Your task to perform on an android device: Go to sound settings Image 0: 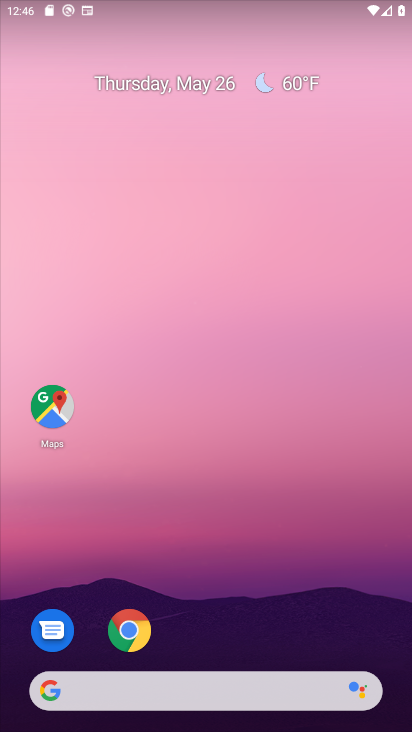
Step 0: drag from (305, 622) to (309, 55)
Your task to perform on an android device: Go to sound settings Image 1: 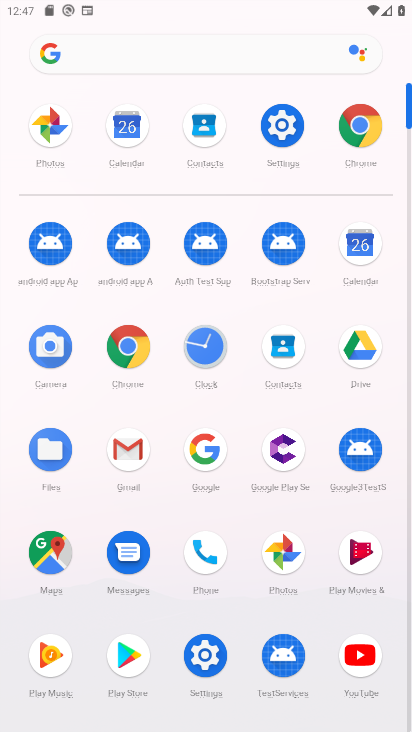
Step 1: click (283, 122)
Your task to perform on an android device: Go to sound settings Image 2: 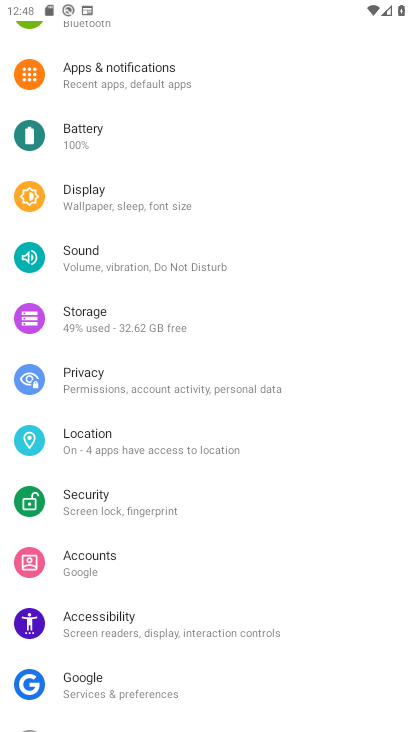
Step 2: click (102, 261)
Your task to perform on an android device: Go to sound settings Image 3: 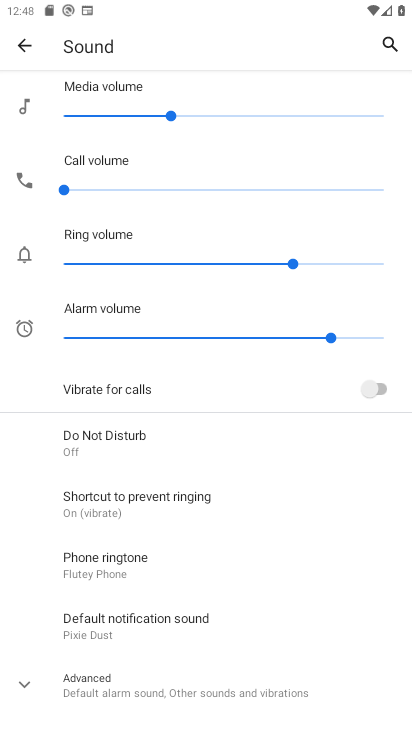
Step 3: task complete